Your task to perform on an android device: change timer sound Image 0: 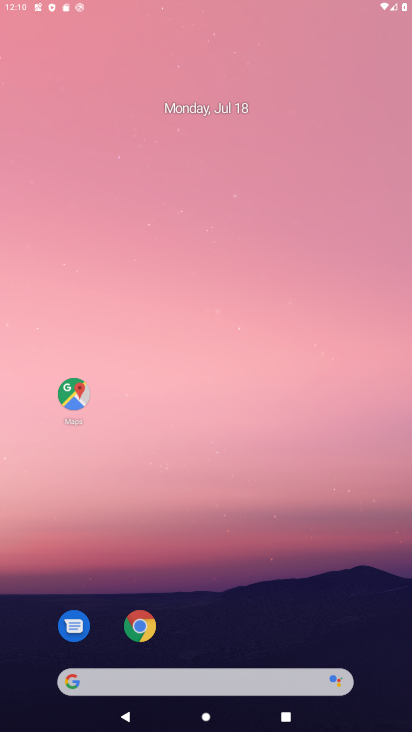
Step 0: click (117, 38)
Your task to perform on an android device: change timer sound Image 1: 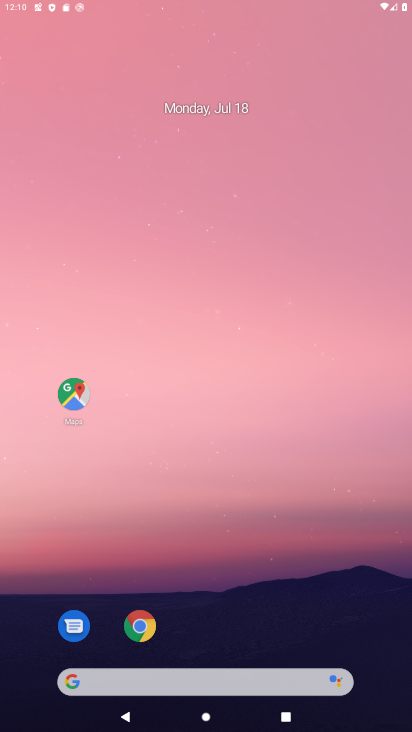
Step 1: press home button
Your task to perform on an android device: change timer sound Image 2: 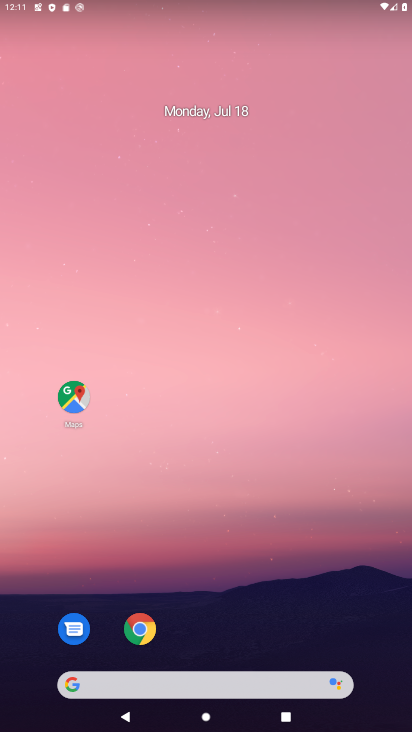
Step 2: drag from (249, 672) to (207, 251)
Your task to perform on an android device: change timer sound Image 3: 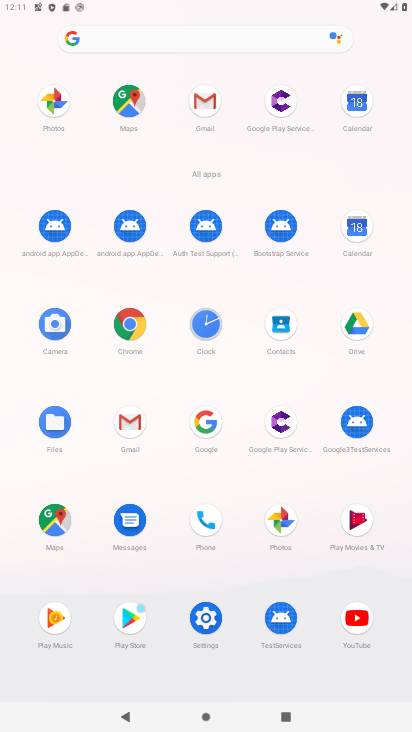
Step 3: click (208, 321)
Your task to perform on an android device: change timer sound Image 4: 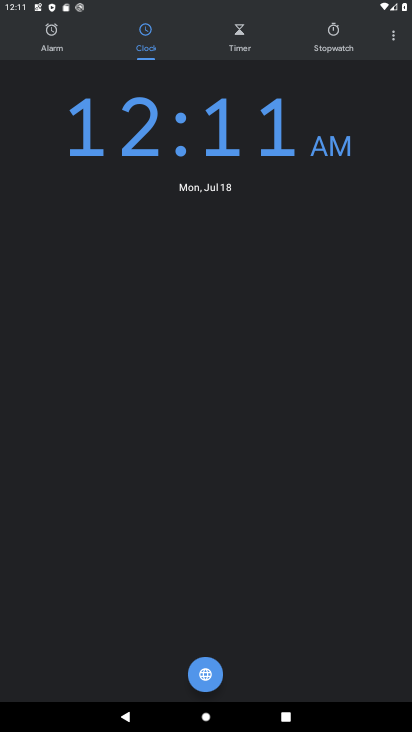
Step 4: click (388, 33)
Your task to perform on an android device: change timer sound Image 5: 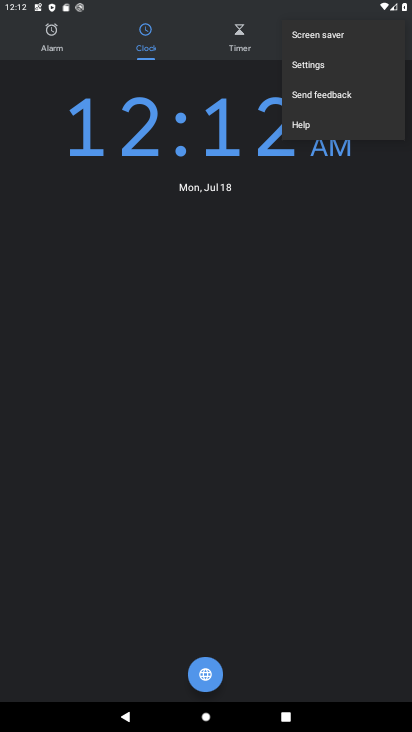
Step 5: click (325, 64)
Your task to perform on an android device: change timer sound Image 6: 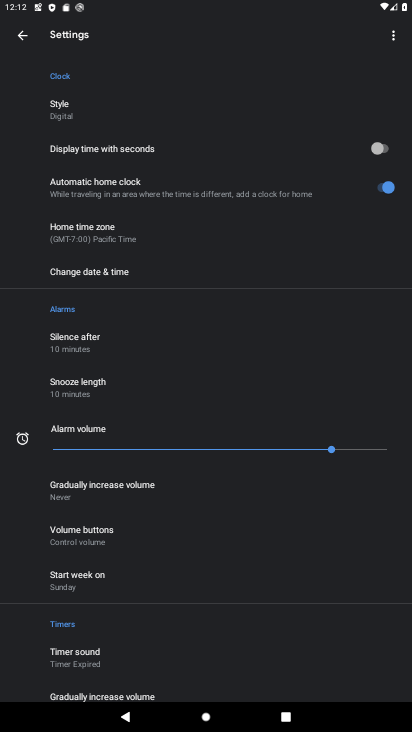
Step 6: click (105, 654)
Your task to perform on an android device: change timer sound Image 7: 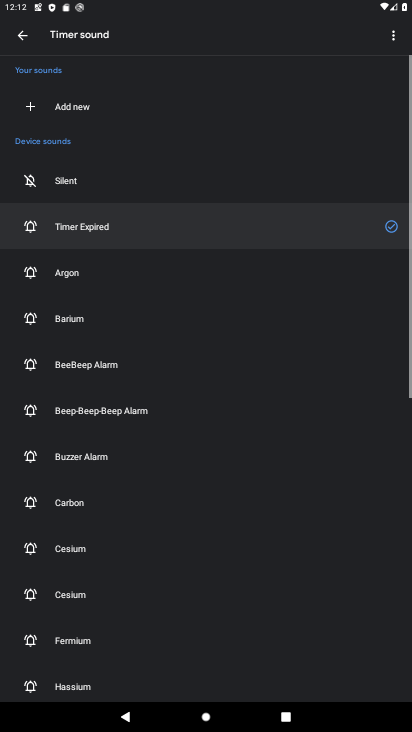
Step 7: click (35, 540)
Your task to perform on an android device: change timer sound Image 8: 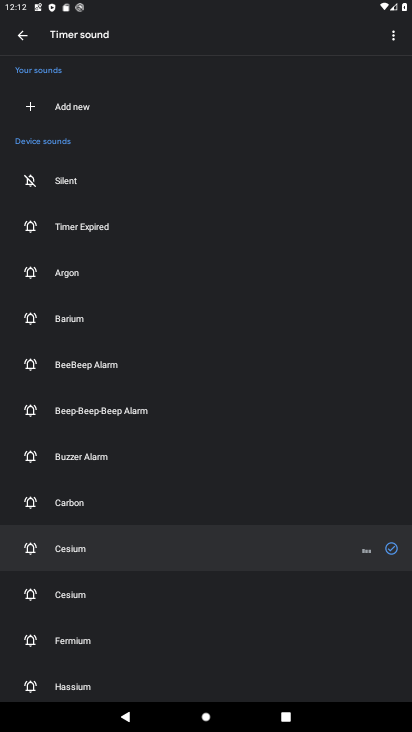
Step 8: task complete